Your task to perform on an android device: Search for sushi restaurants on Maps Image 0: 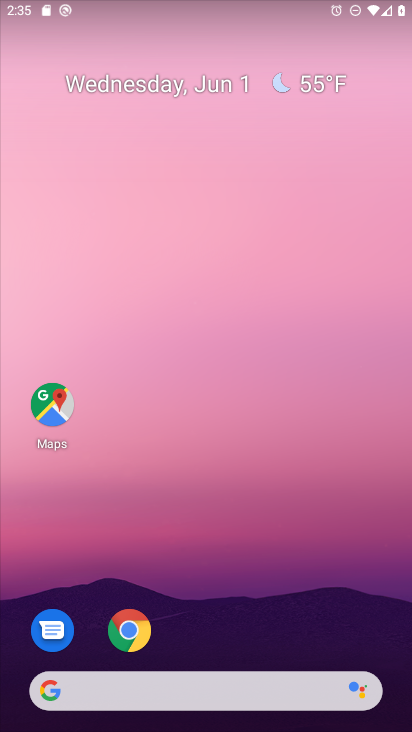
Step 0: drag from (330, 569) to (358, 12)
Your task to perform on an android device: Search for sushi restaurants on Maps Image 1: 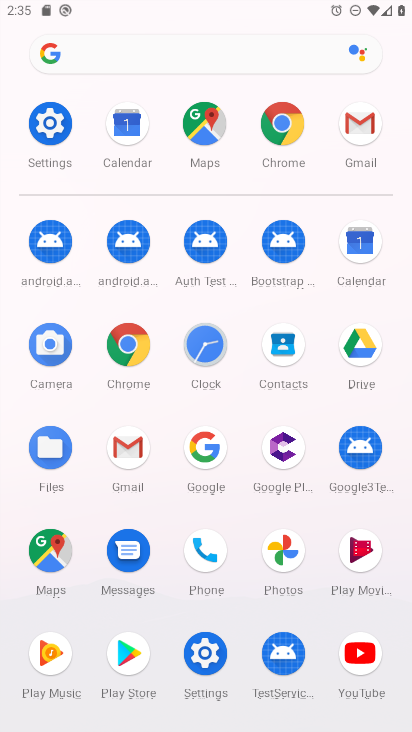
Step 1: click (54, 556)
Your task to perform on an android device: Search for sushi restaurants on Maps Image 2: 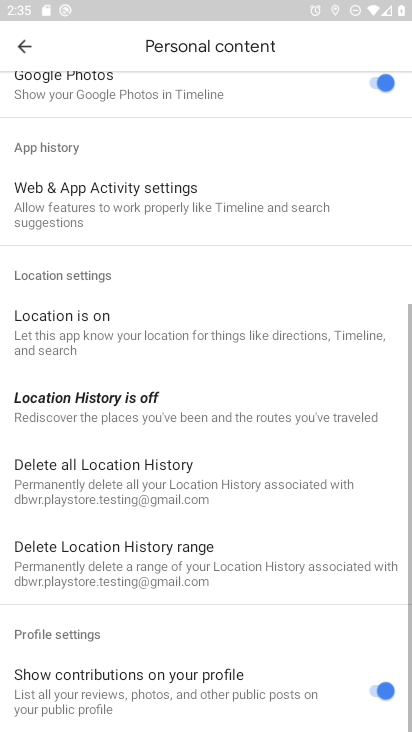
Step 2: press back button
Your task to perform on an android device: Search for sushi restaurants on Maps Image 3: 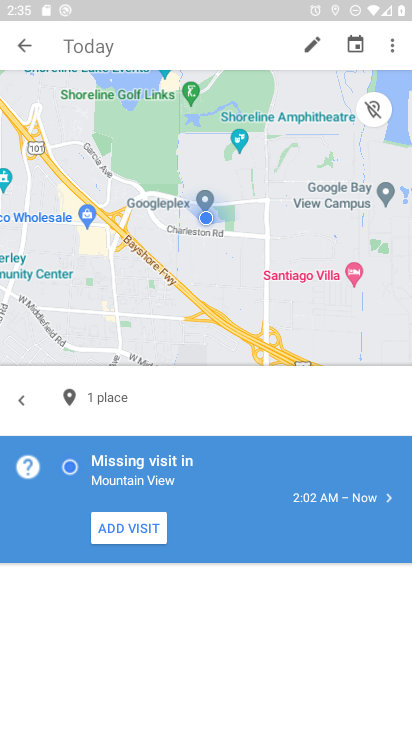
Step 3: press back button
Your task to perform on an android device: Search for sushi restaurants on Maps Image 4: 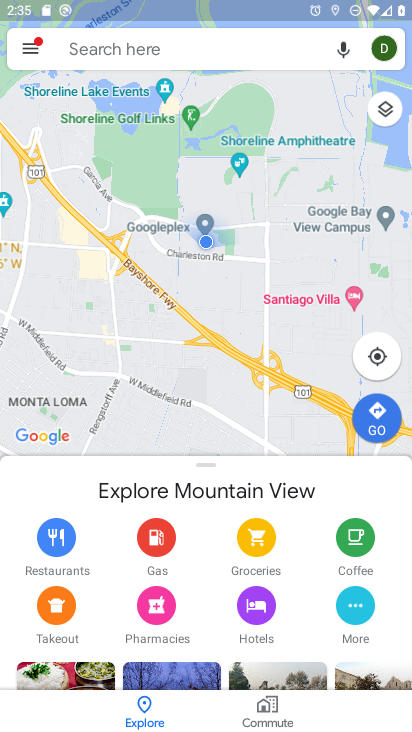
Step 4: click (194, 58)
Your task to perform on an android device: Search for sushi restaurants on Maps Image 5: 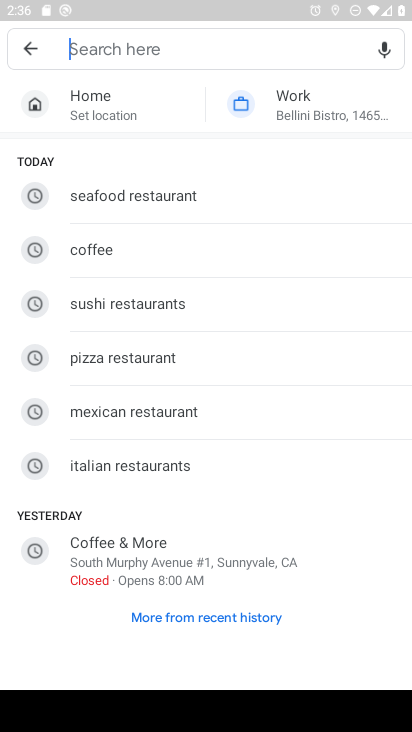
Step 5: click (151, 302)
Your task to perform on an android device: Search for sushi restaurants on Maps Image 6: 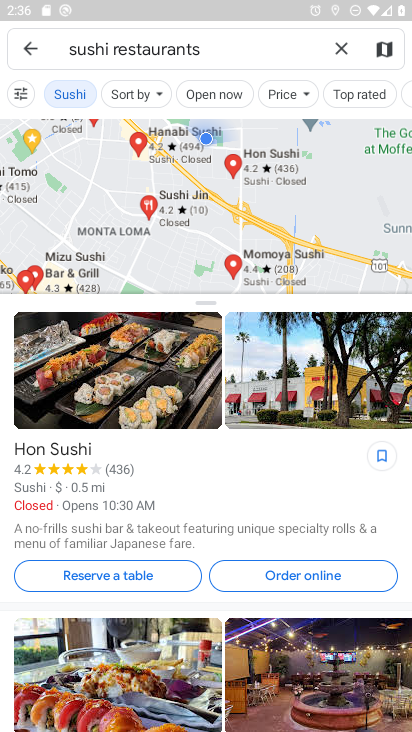
Step 6: task complete